Your task to perform on an android device: change your default location settings in chrome Image 0: 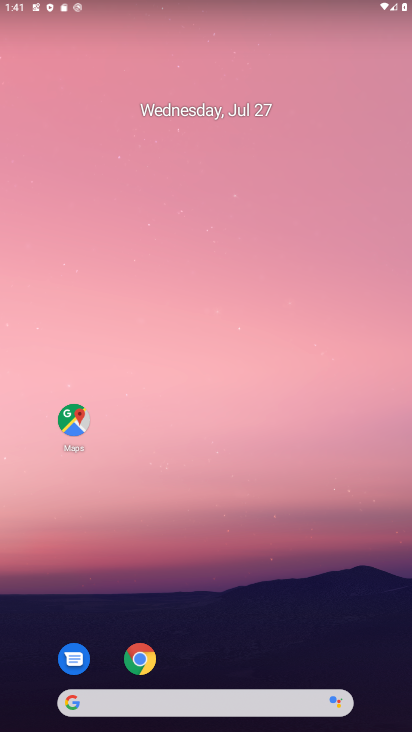
Step 0: drag from (349, 658) to (227, 72)
Your task to perform on an android device: change your default location settings in chrome Image 1: 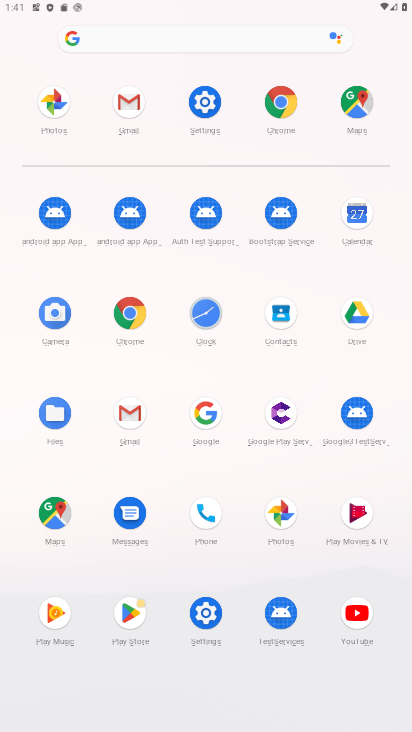
Step 1: click (285, 97)
Your task to perform on an android device: change your default location settings in chrome Image 2: 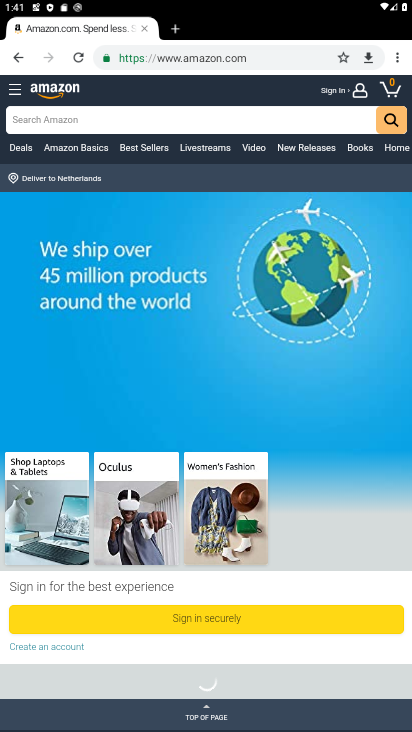
Step 2: drag from (404, 50) to (277, 377)
Your task to perform on an android device: change your default location settings in chrome Image 3: 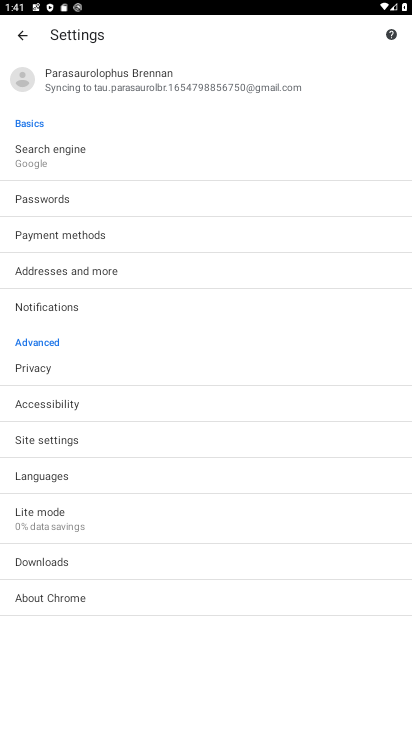
Step 3: click (65, 165)
Your task to perform on an android device: change your default location settings in chrome Image 4: 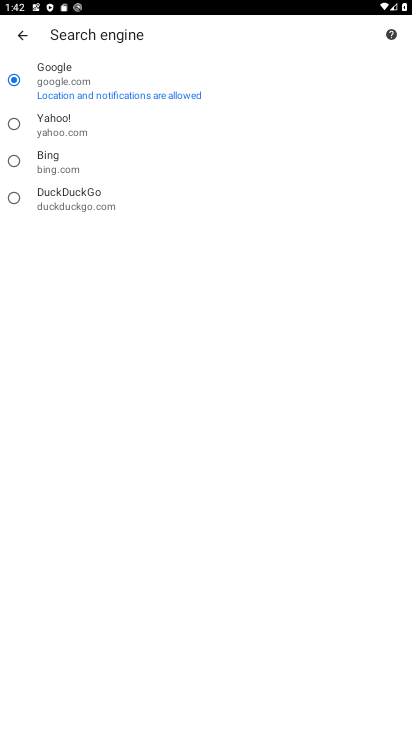
Step 4: click (31, 43)
Your task to perform on an android device: change your default location settings in chrome Image 5: 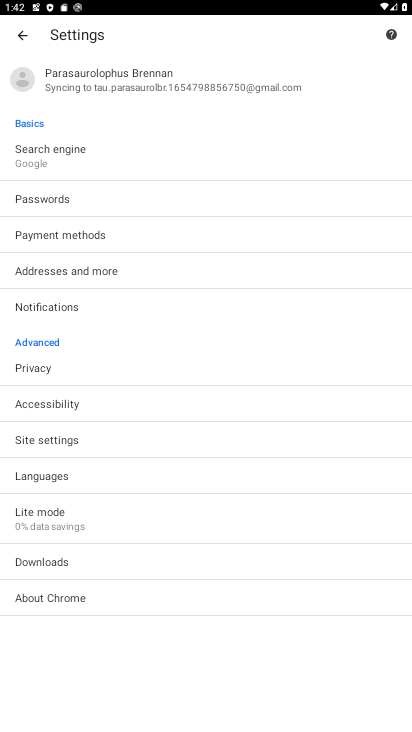
Step 5: click (59, 446)
Your task to perform on an android device: change your default location settings in chrome Image 6: 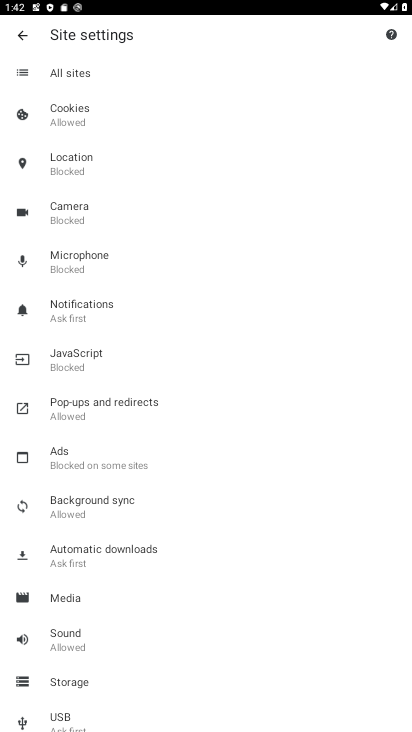
Step 6: click (85, 173)
Your task to perform on an android device: change your default location settings in chrome Image 7: 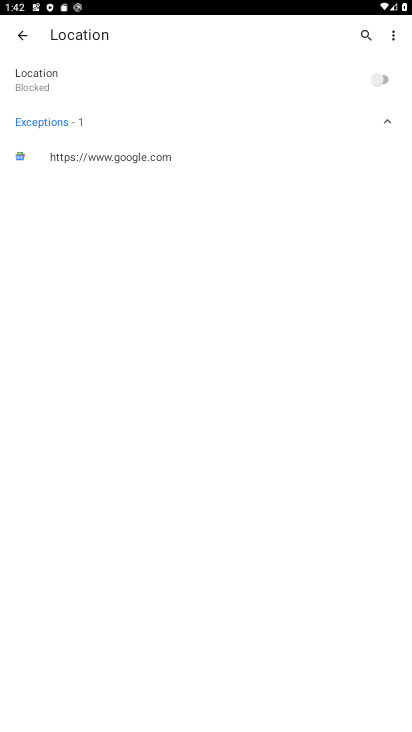
Step 7: click (358, 89)
Your task to perform on an android device: change your default location settings in chrome Image 8: 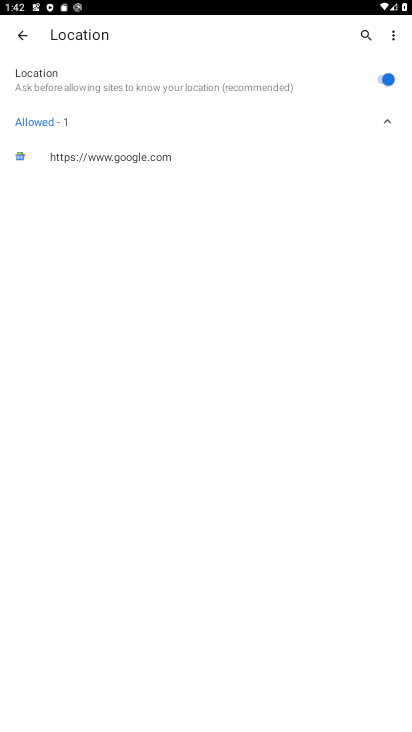
Step 8: task complete